Your task to perform on an android device: Go to display settings Image 0: 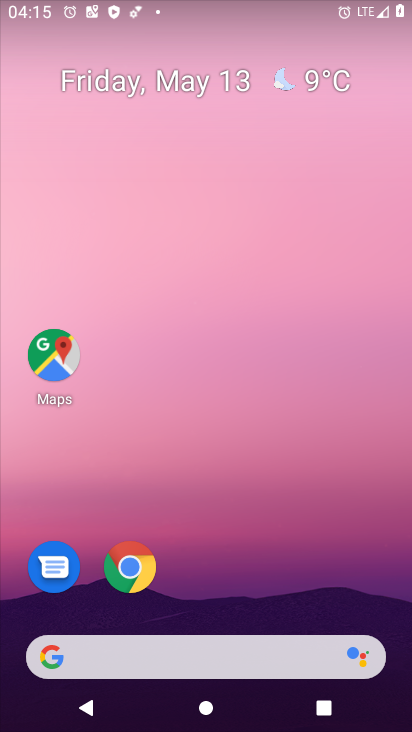
Step 0: drag from (343, 560) to (313, 48)
Your task to perform on an android device: Go to display settings Image 1: 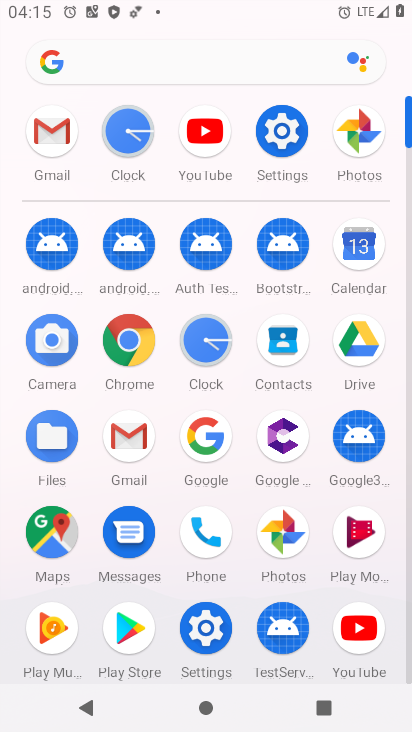
Step 1: click (282, 141)
Your task to perform on an android device: Go to display settings Image 2: 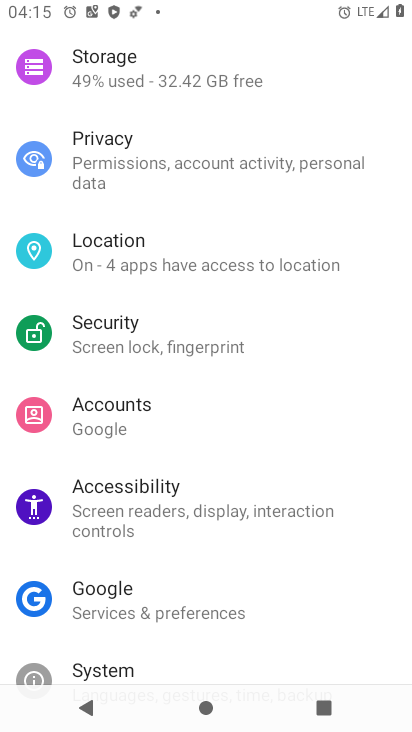
Step 2: drag from (281, 210) to (270, 467)
Your task to perform on an android device: Go to display settings Image 3: 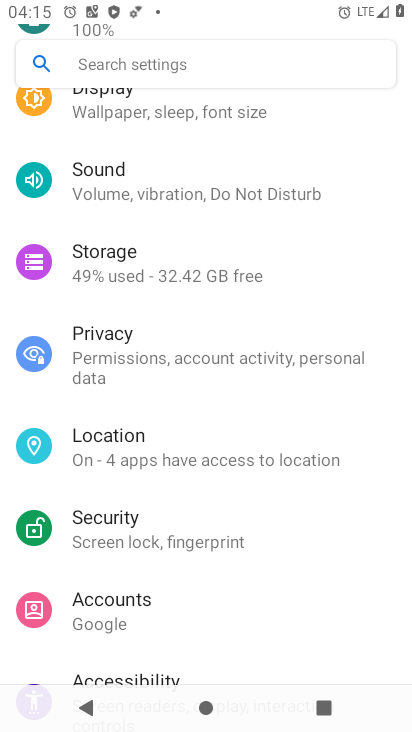
Step 3: drag from (231, 164) to (237, 450)
Your task to perform on an android device: Go to display settings Image 4: 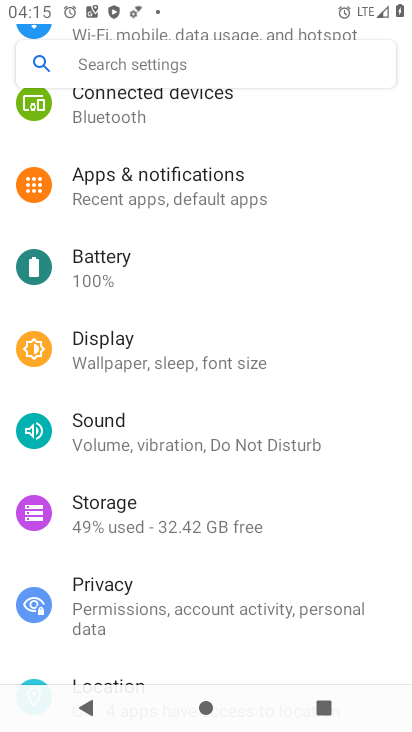
Step 4: click (108, 353)
Your task to perform on an android device: Go to display settings Image 5: 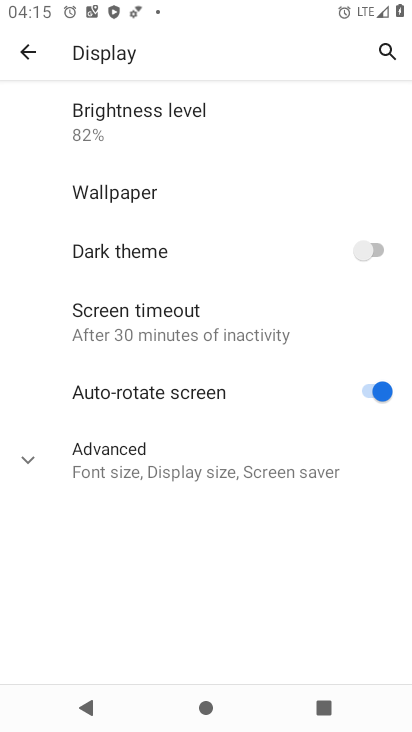
Step 5: task complete